Your task to perform on an android device: Open notification settings Image 0: 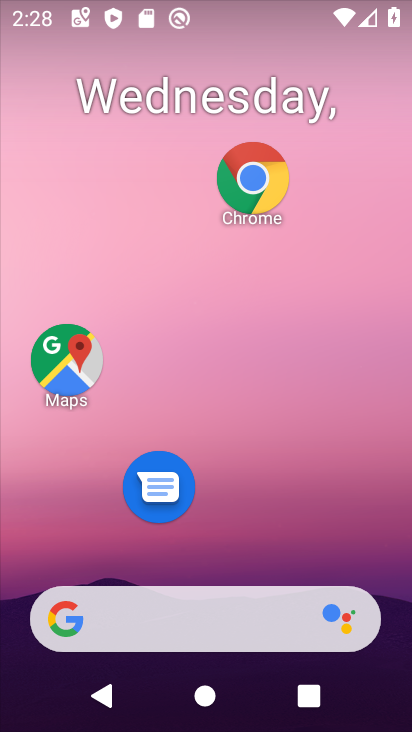
Step 0: drag from (308, 522) to (318, 1)
Your task to perform on an android device: Open notification settings Image 1: 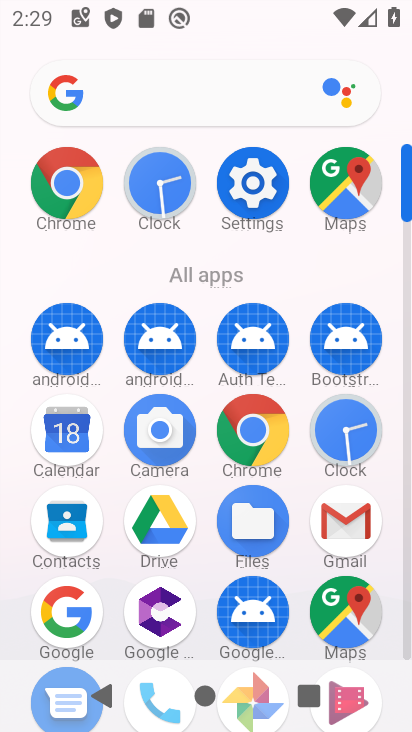
Step 1: click (241, 179)
Your task to perform on an android device: Open notification settings Image 2: 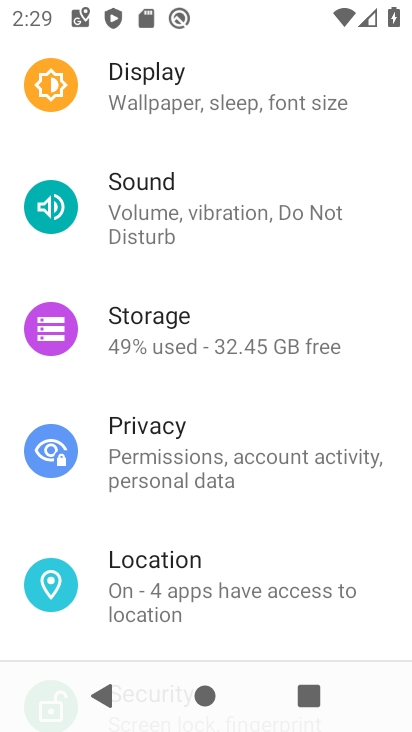
Step 2: drag from (188, 203) to (199, 390)
Your task to perform on an android device: Open notification settings Image 3: 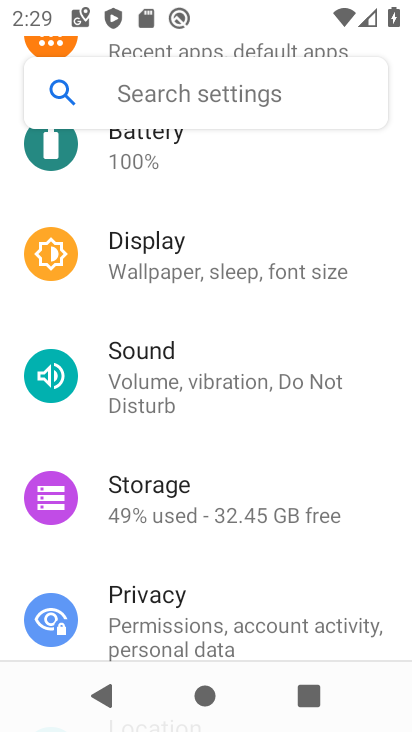
Step 3: drag from (204, 195) to (186, 411)
Your task to perform on an android device: Open notification settings Image 4: 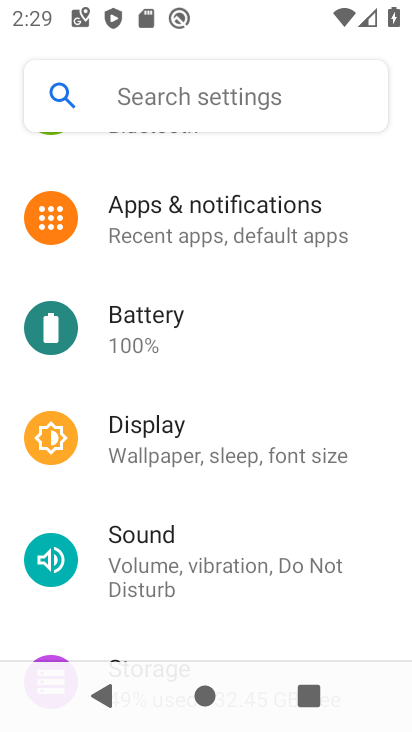
Step 4: click (184, 234)
Your task to perform on an android device: Open notification settings Image 5: 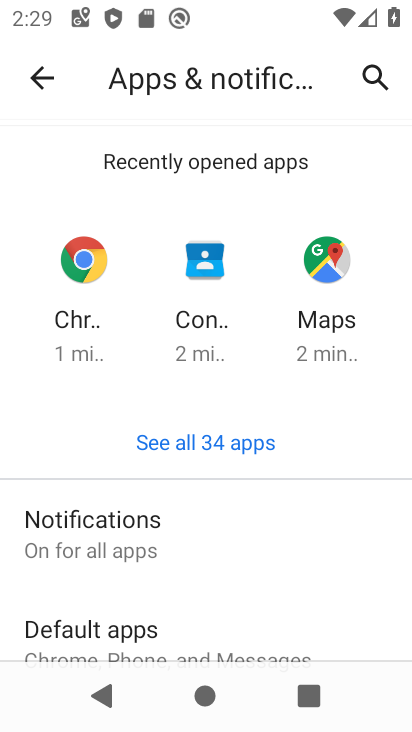
Step 5: click (87, 529)
Your task to perform on an android device: Open notification settings Image 6: 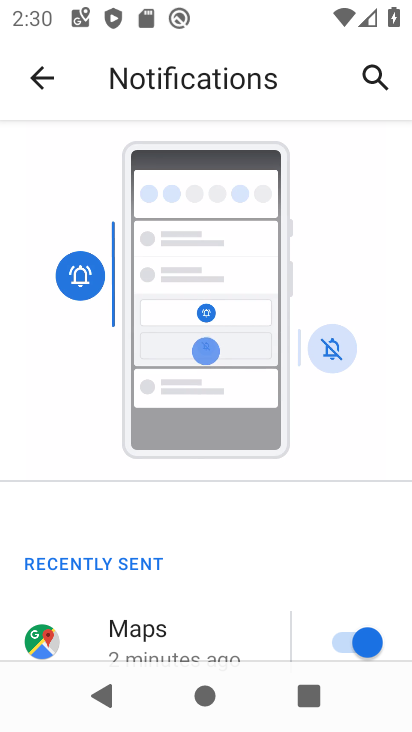
Step 6: task complete